Your task to perform on an android device: Open calendar and show me the fourth week of next month Image 0: 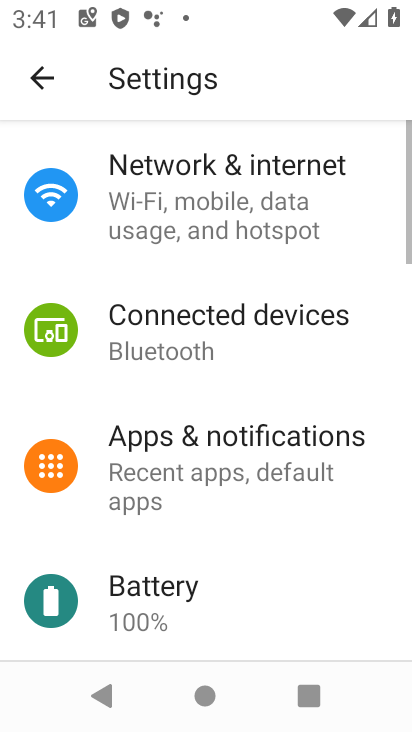
Step 0: press home button
Your task to perform on an android device: Open calendar and show me the fourth week of next month Image 1: 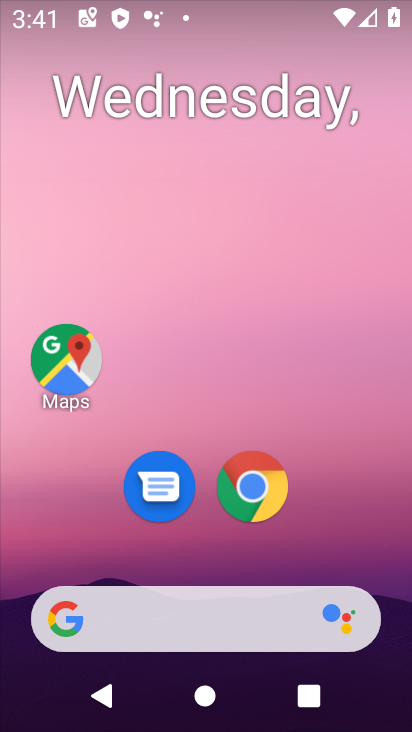
Step 1: drag from (223, 547) to (273, 374)
Your task to perform on an android device: Open calendar and show me the fourth week of next month Image 2: 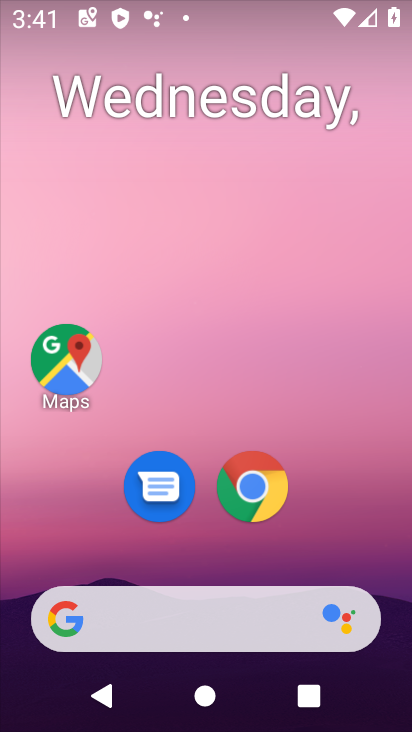
Step 2: drag from (203, 542) to (236, 257)
Your task to perform on an android device: Open calendar and show me the fourth week of next month Image 3: 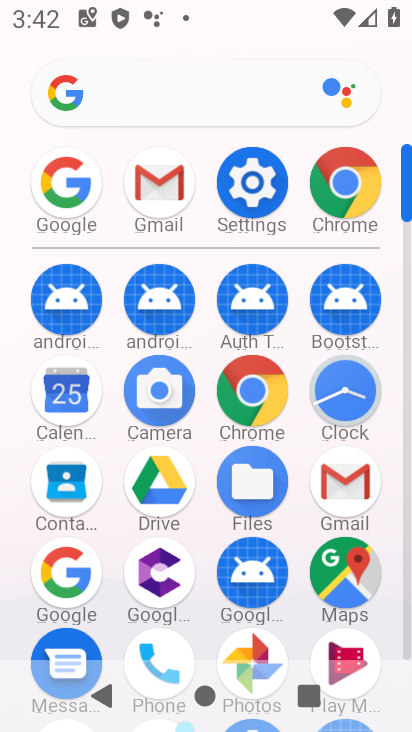
Step 3: click (74, 393)
Your task to perform on an android device: Open calendar and show me the fourth week of next month Image 4: 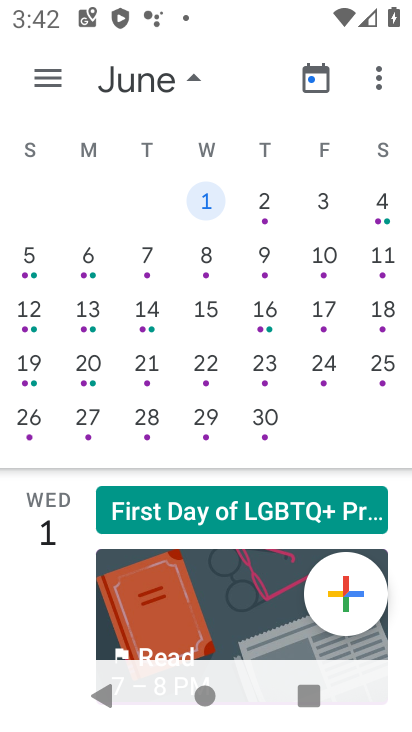
Step 4: click (23, 359)
Your task to perform on an android device: Open calendar and show me the fourth week of next month Image 5: 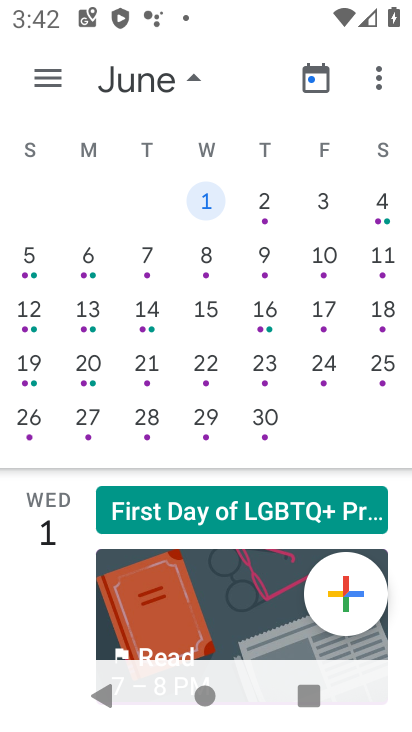
Step 5: task complete